Your task to perform on an android device: Set the phone to "Do not disturb". Image 0: 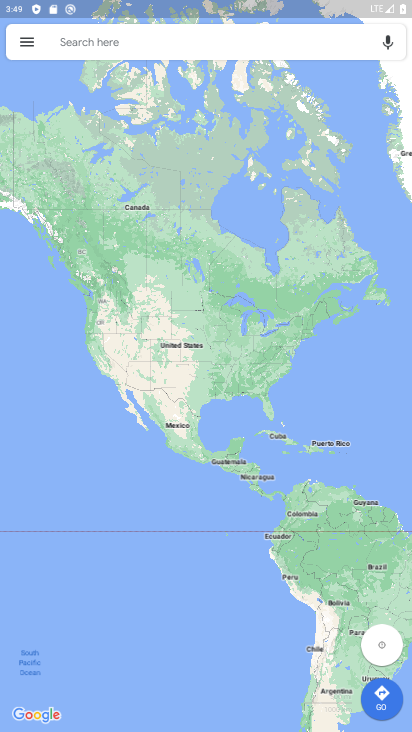
Step 0: press home button
Your task to perform on an android device: Set the phone to "Do not disturb". Image 1: 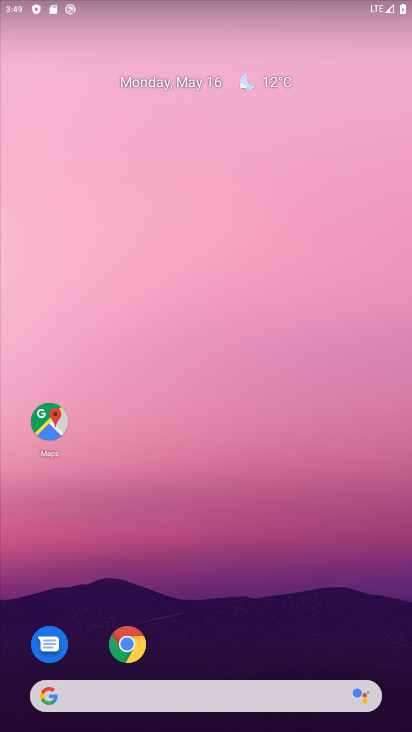
Step 1: drag from (256, 432) to (203, 48)
Your task to perform on an android device: Set the phone to "Do not disturb". Image 2: 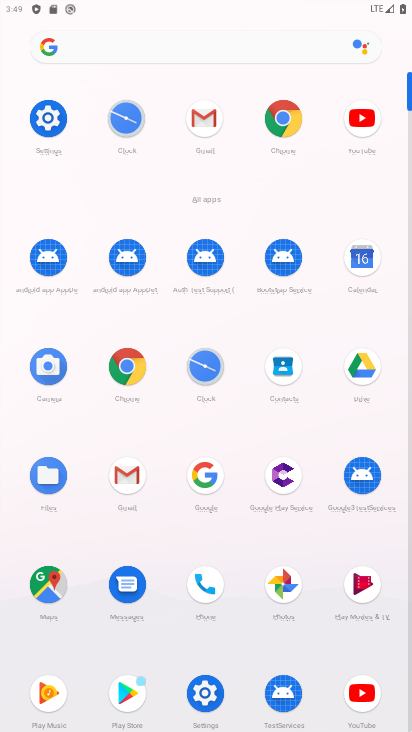
Step 2: click (43, 124)
Your task to perform on an android device: Set the phone to "Do not disturb". Image 3: 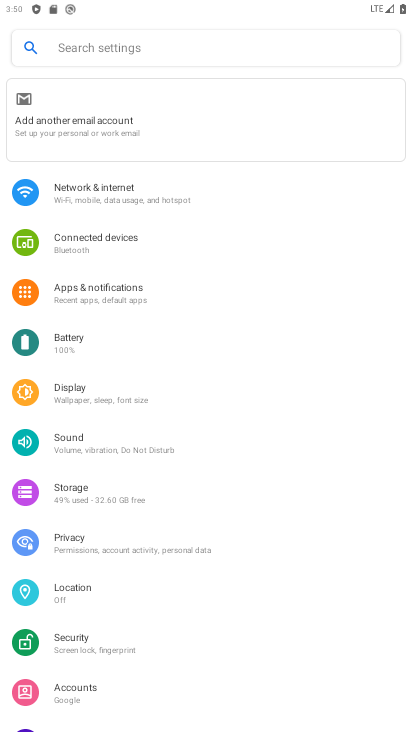
Step 3: click (108, 427)
Your task to perform on an android device: Set the phone to "Do not disturb". Image 4: 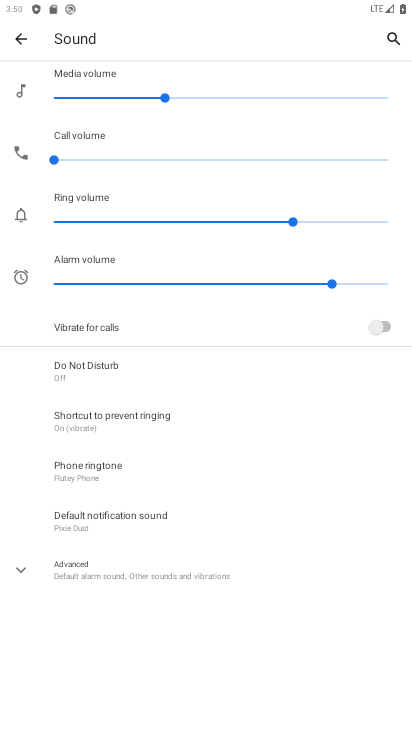
Step 4: click (148, 378)
Your task to perform on an android device: Set the phone to "Do not disturb". Image 5: 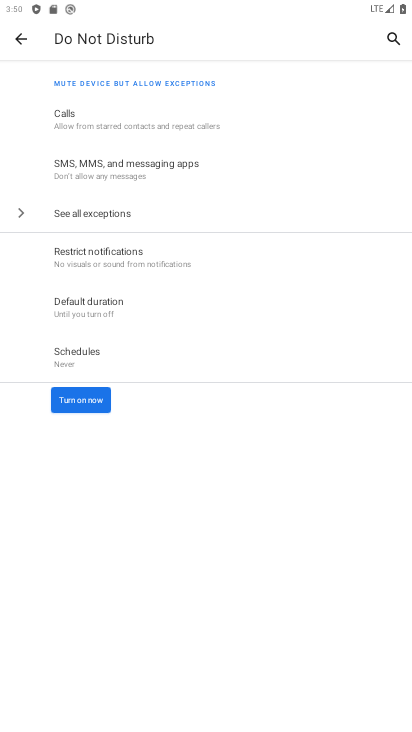
Step 5: click (76, 400)
Your task to perform on an android device: Set the phone to "Do not disturb". Image 6: 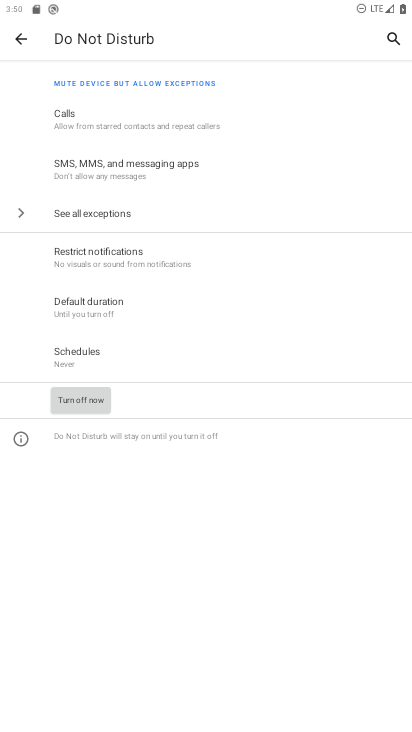
Step 6: task complete